Your task to perform on an android device: Open notification settings Image 0: 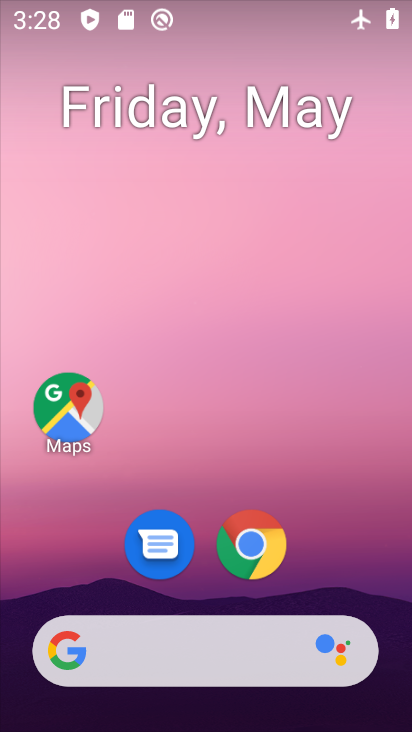
Step 0: drag from (319, 642) to (253, 177)
Your task to perform on an android device: Open notification settings Image 1: 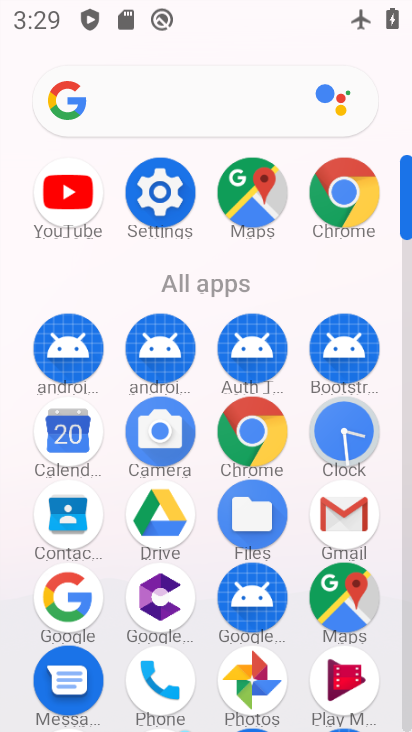
Step 1: click (157, 199)
Your task to perform on an android device: Open notification settings Image 2: 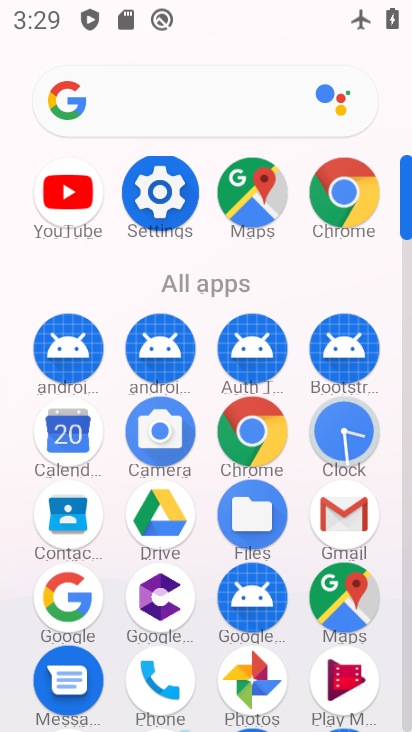
Step 2: click (159, 197)
Your task to perform on an android device: Open notification settings Image 3: 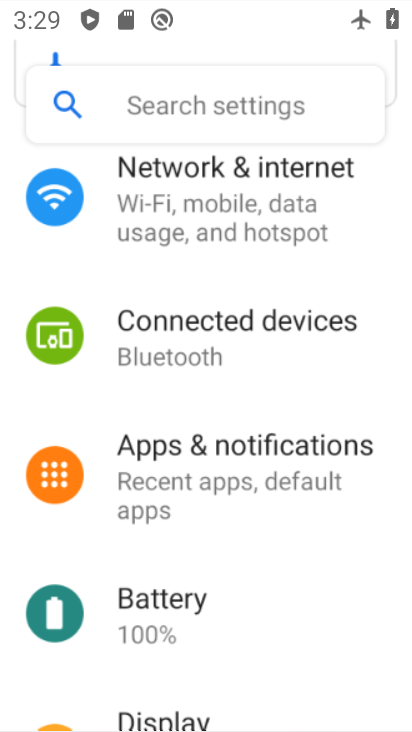
Step 3: click (163, 193)
Your task to perform on an android device: Open notification settings Image 4: 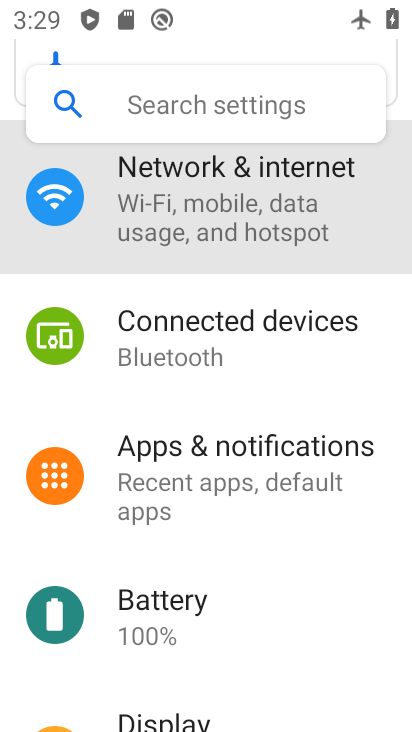
Step 4: click (156, 197)
Your task to perform on an android device: Open notification settings Image 5: 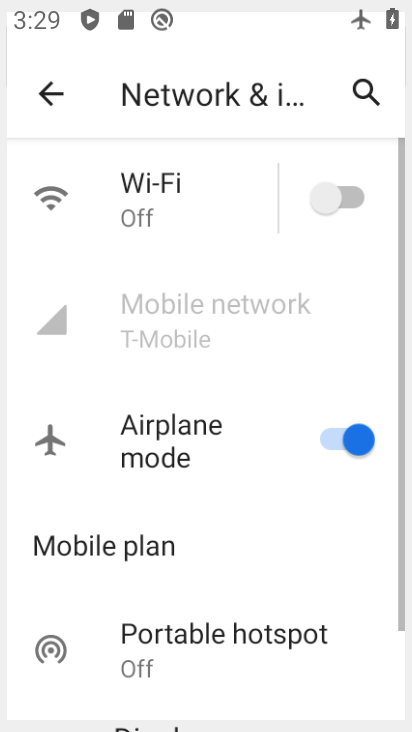
Step 5: click (168, 214)
Your task to perform on an android device: Open notification settings Image 6: 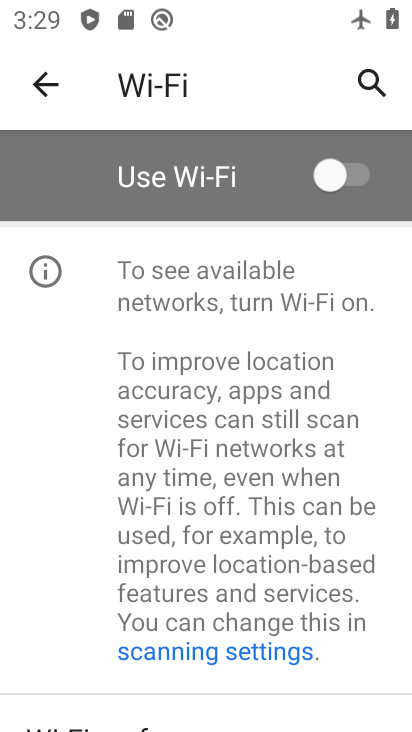
Step 6: click (53, 88)
Your task to perform on an android device: Open notification settings Image 7: 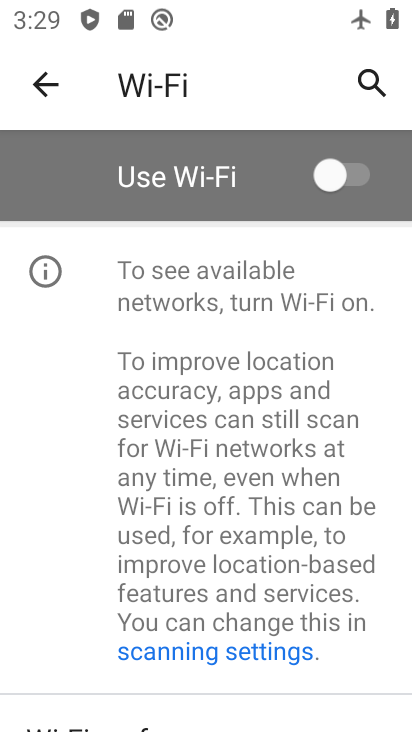
Step 7: click (48, 83)
Your task to perform on an android device: Open notification settings Image 8: 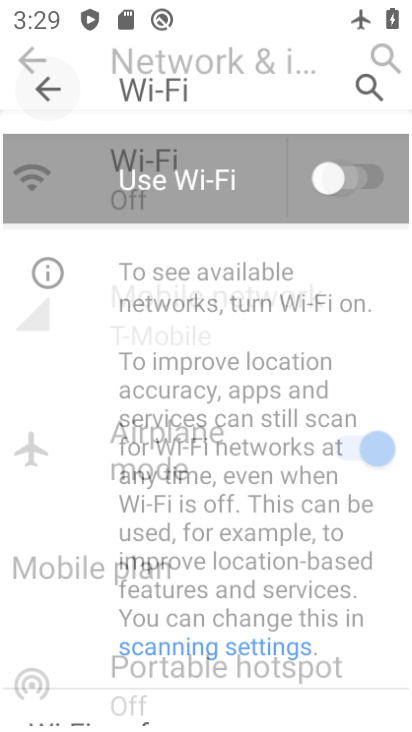
Step 8: click (48, 83)
Your task to perform on an android device: Open notification settings Image 9: 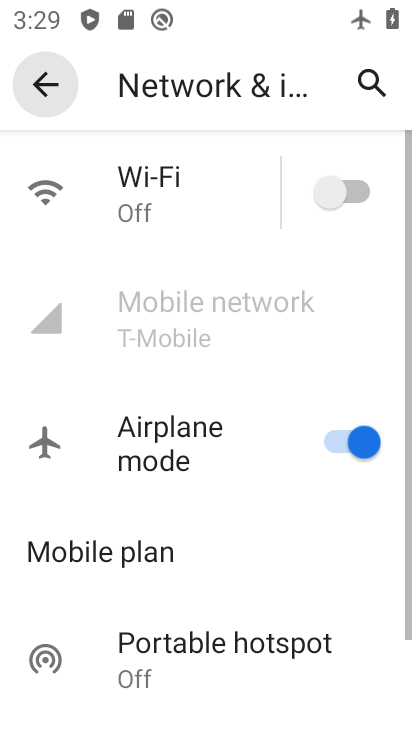
Step 9: click (47, 83)
Your task to perform on an android device: Open notification settings Image 10: 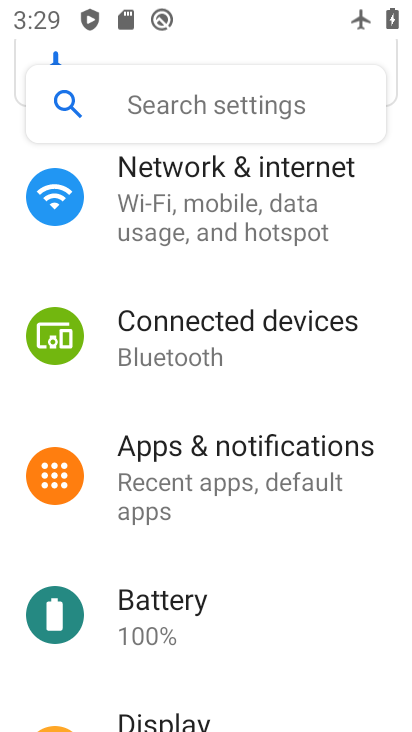
Step 10: drag from (178, 472) to (230, 457)
Your task to perform on an android device: Open notification settings Image 11: 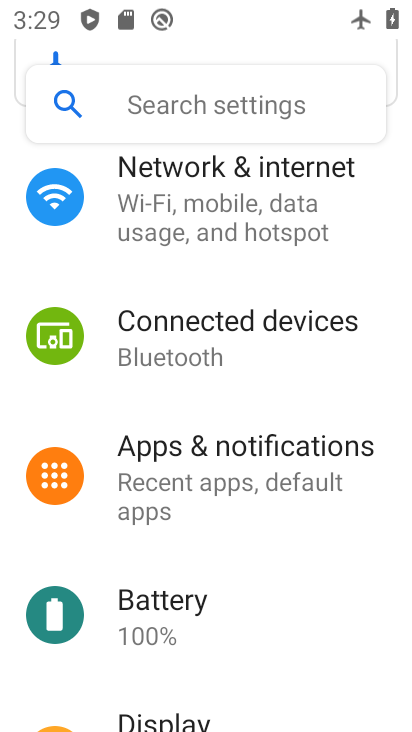
Step 11: click (247, 451)
Your task to perform on an android device: Open notification settings Image 12: 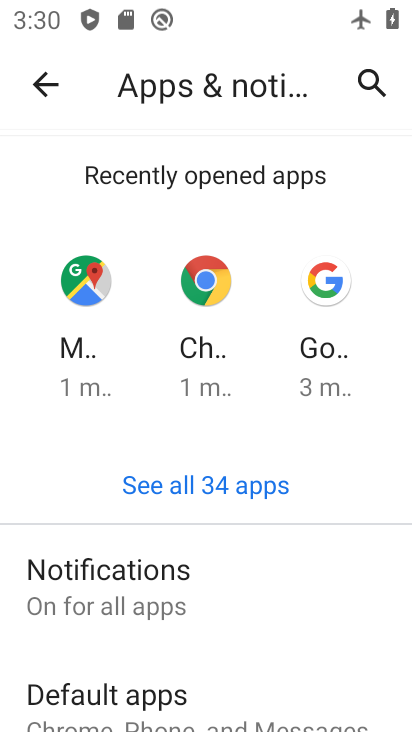
Step 12: task complete